Your task to perform on an android device: View the shopping cart on target. Add corsair k70 to the cart on target, then select checkout. Image 0: 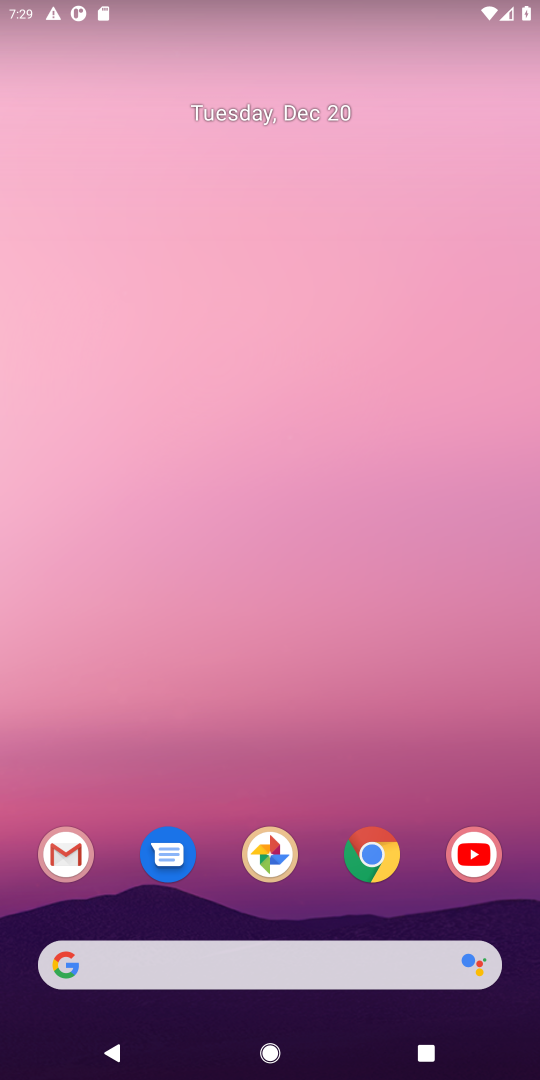
Step 0: click (378, 862)
Your task to perform on an android device: View the shopping cart on target. Add corsair k70 to the cart on target, then select checkout. Image 1: 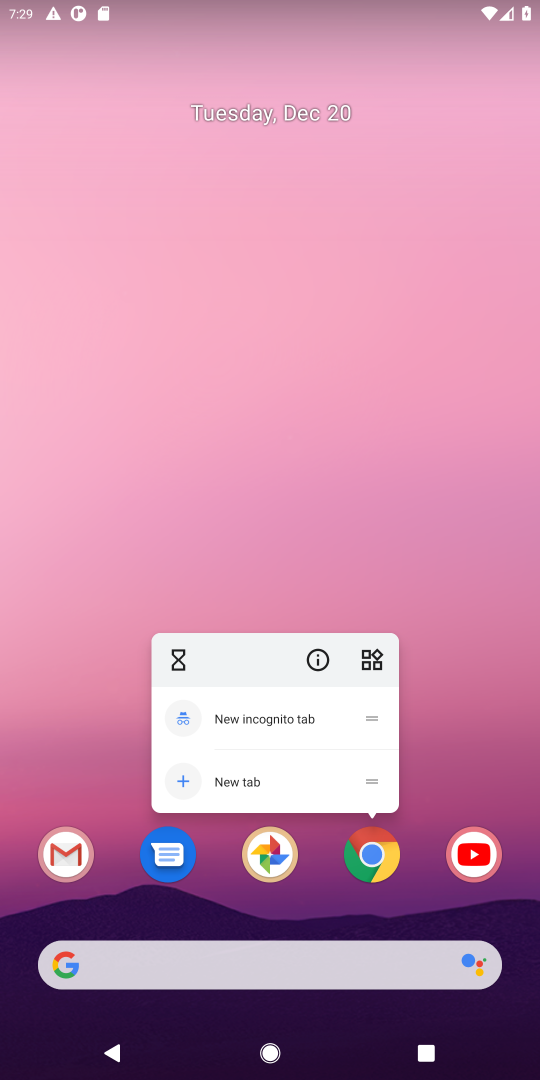
Step 1: click (378, 862)
Your task to perform on an android device: View the shopping cart on target. Add corsair k70 to the cart on target, then select checkout. Image 2: 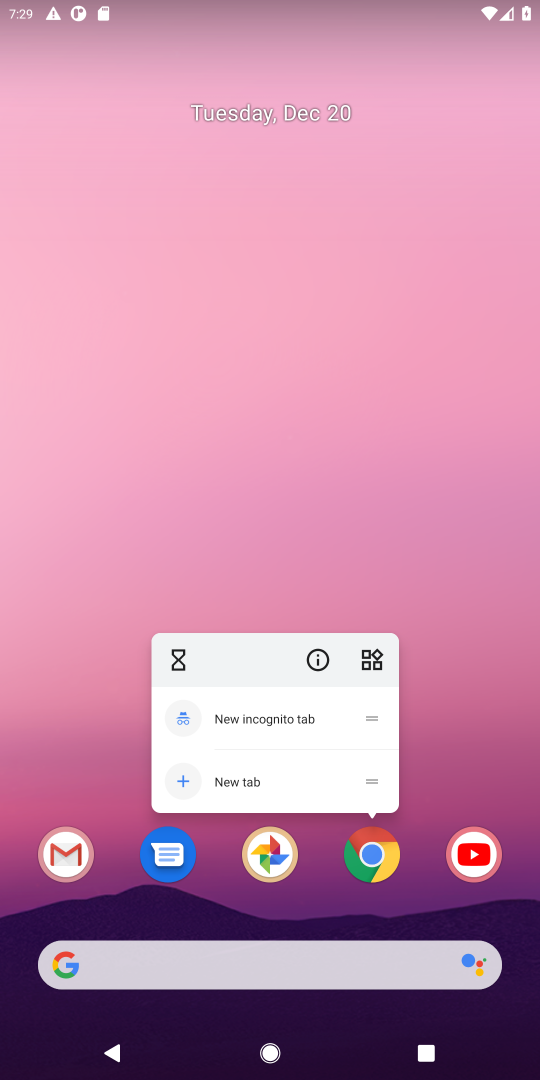
Step 2: click (476, 665)
Your task to perform on an android device: View the shopping cart on target. Add corsair k70 to the cart on target, then select checkout. Image 3: 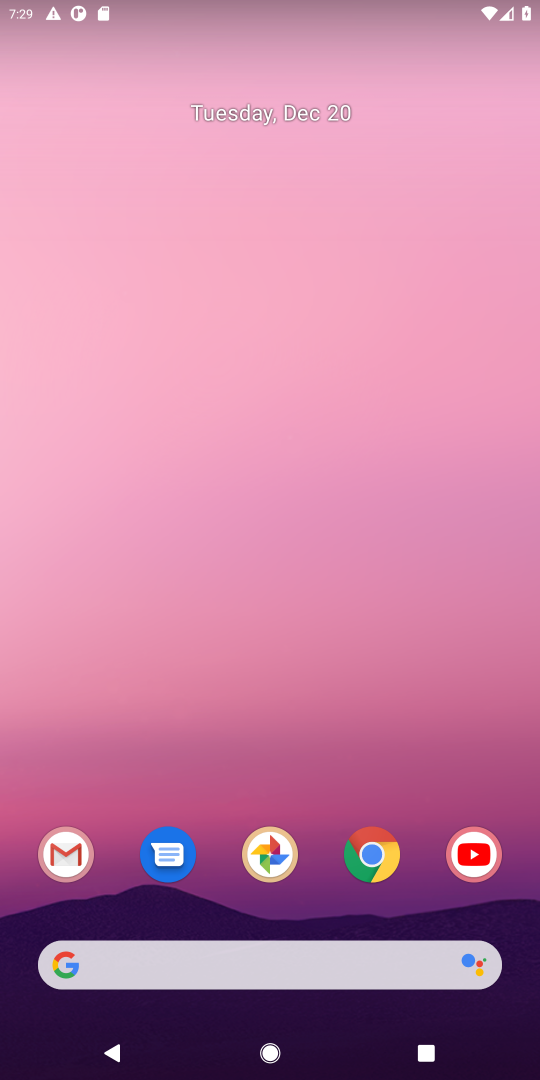
Step 3: click (373, 853)
Your task to perform on an android device: View the shopping cart on target. Add corsair k70 to the cart on target, then select checkout. Image 4: 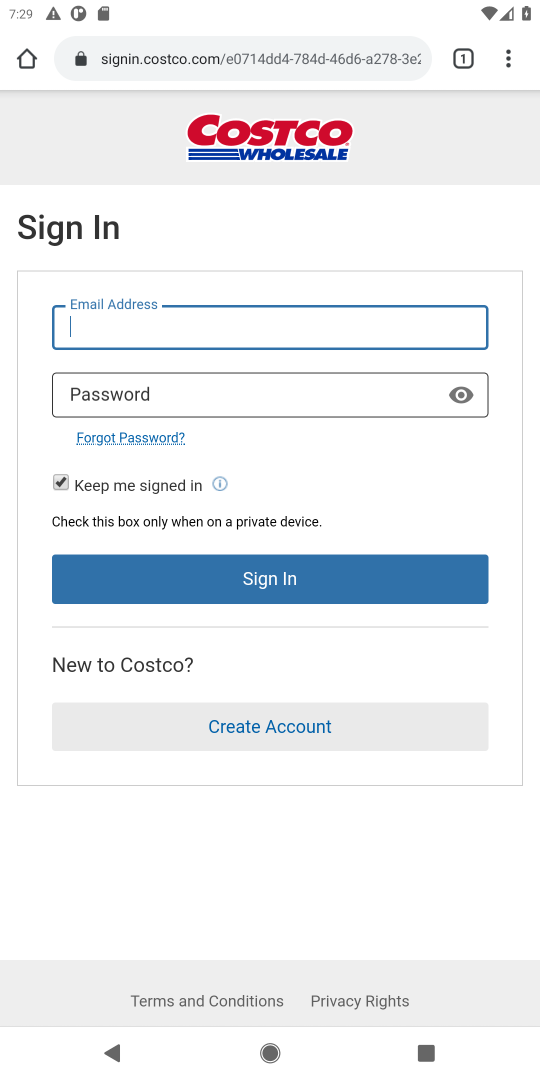
Step 4: click (183, 60)
Your task to perform on an android device: View the shopping cart on target. Add corsair k70 to the cart on target, then select checkout. Image 5: 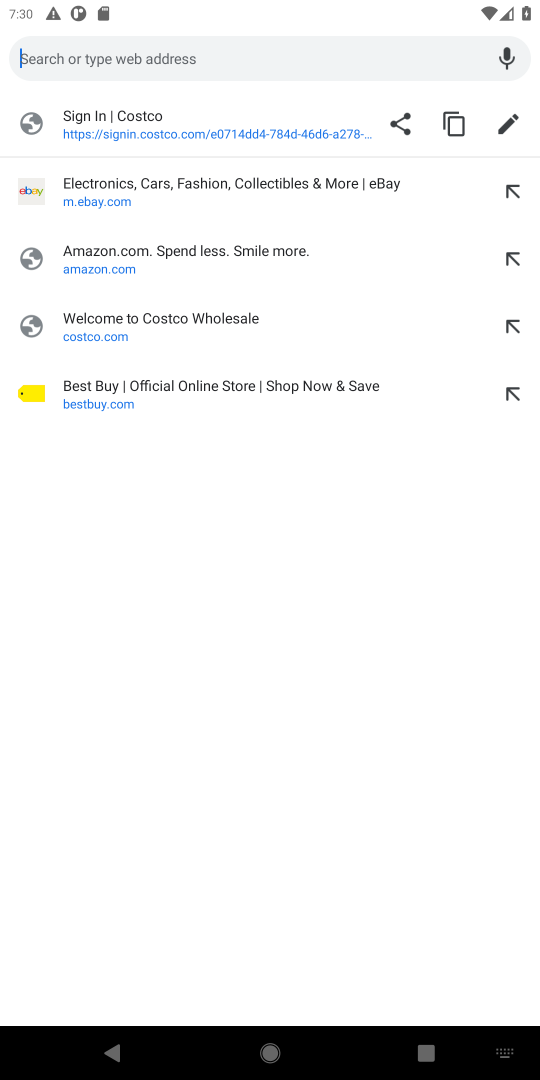
Step 5: type "target.com"
Your task to perform on an android device: View the shopping cart on target. Add corsair k70 to the cart on target, then select checkout. Image 6: 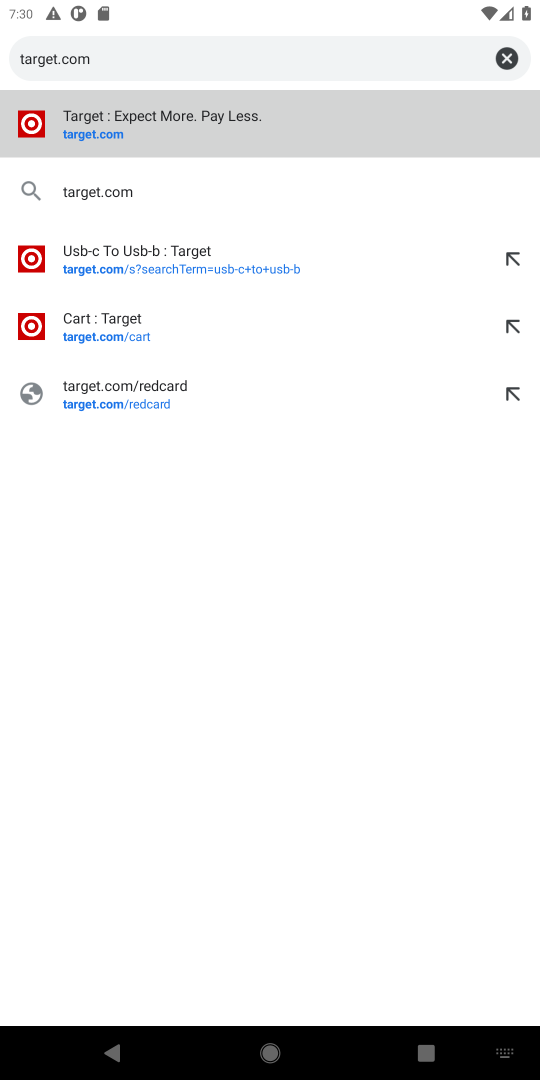
Step 6: click (84, 117)
Your task to perform on an android device: View the shopping cart on target. Add corsair k70 to the cart on target, then select checkout. Image 7: 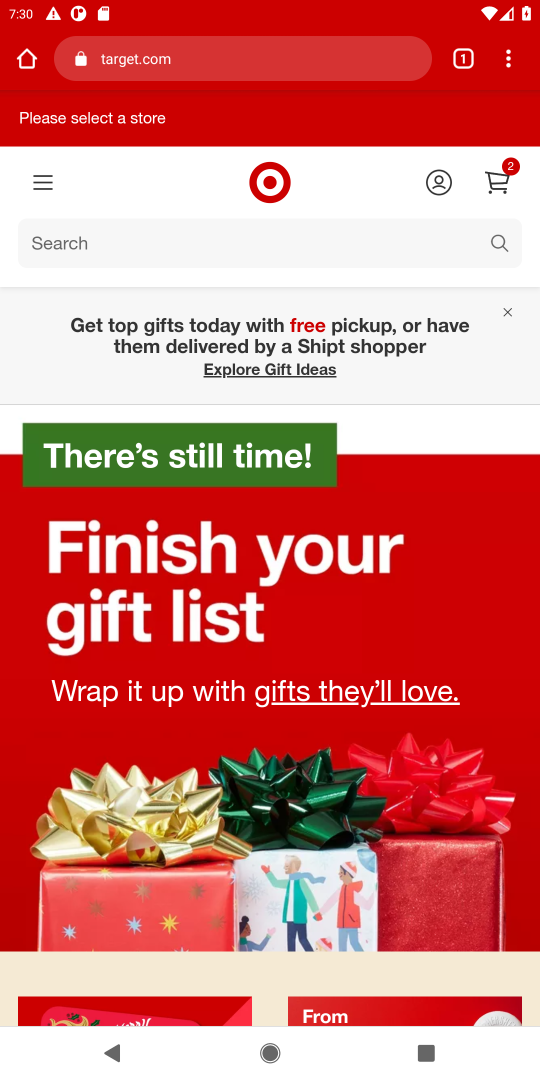
Step 7: click (50, 248)
Your task to perform on an android device: View the shopping cart on target. Add corsair k70 to the cart on target, then select checkout. Image 8: 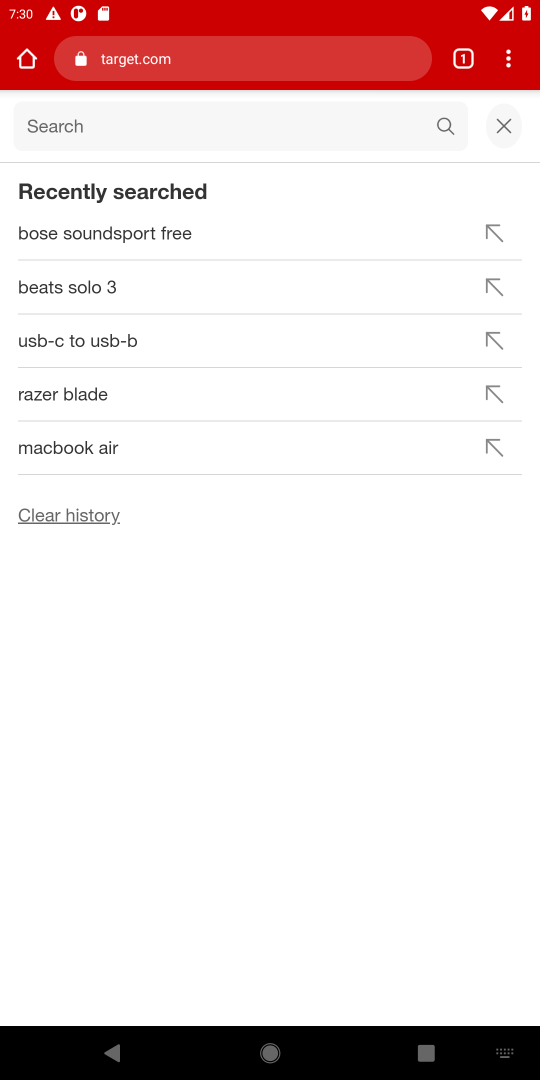
Step 8: type "corsair k70 "
Your task to perform on an android device: View the shopping cart on target. Add corsair k70 to the cart on target, then select checkout. Image 9: 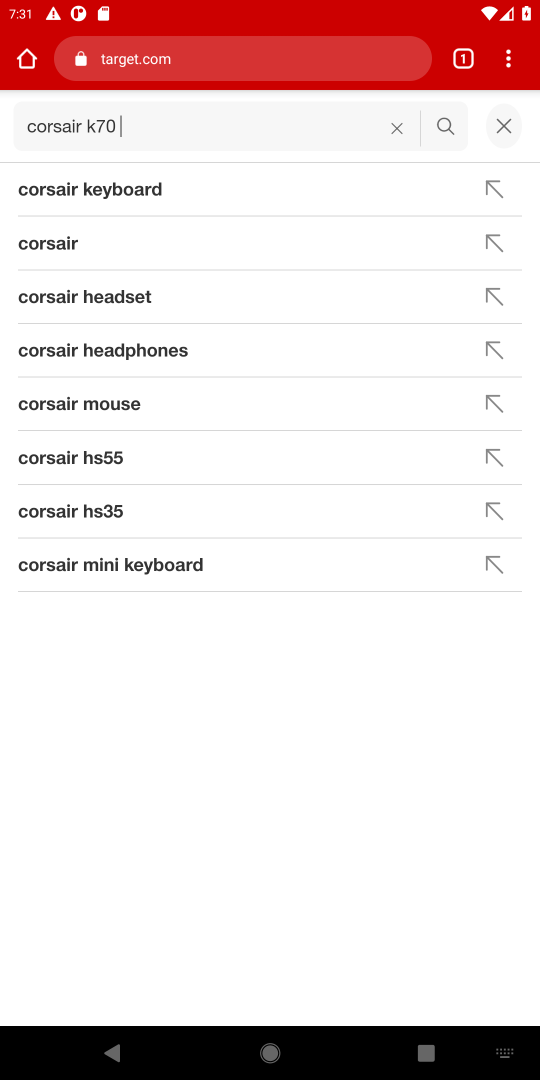
Step 9: click (444, 123)
Your task to perform on an android device: View the shopping cart on target. Add corsair k70 to the cart on target, then select checkout. Image 10: 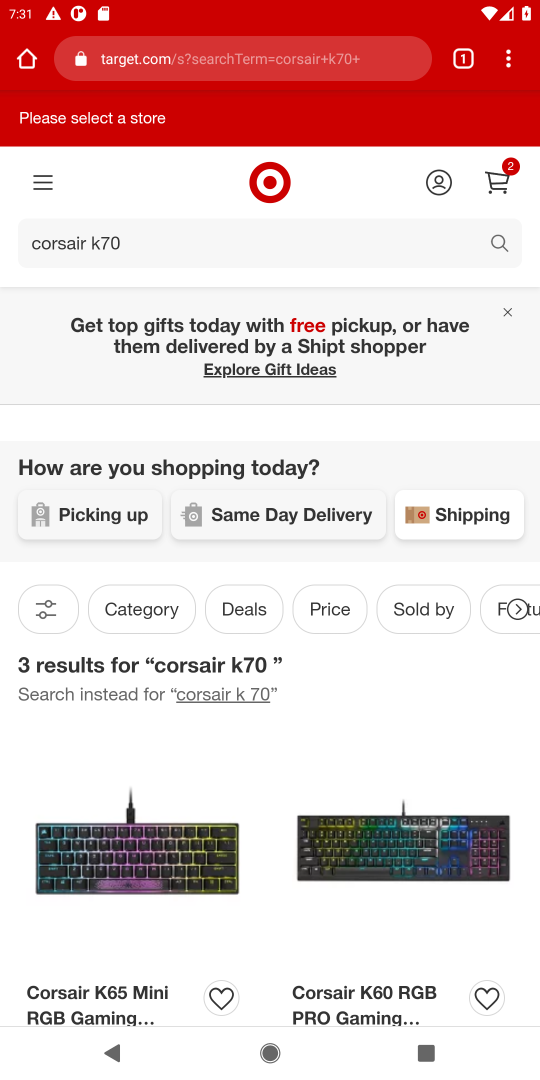
Step 10: task complete